Your task to perform on an android device: Open battery settings Image 0: 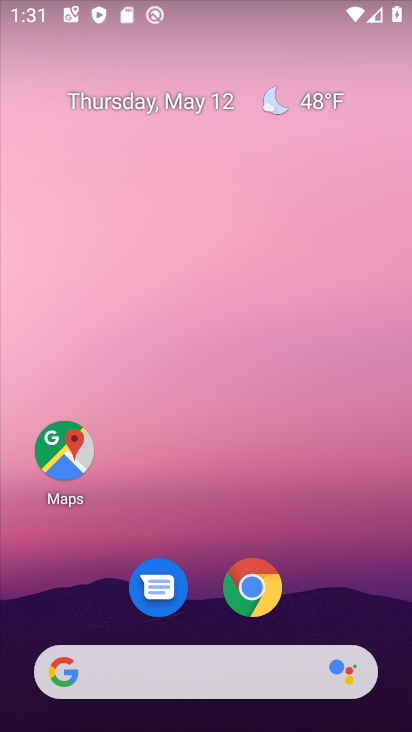
Step 0: drag from (251, 583) to (276, 113)
Your task to perform on an android device: Open battery settings Image 1: 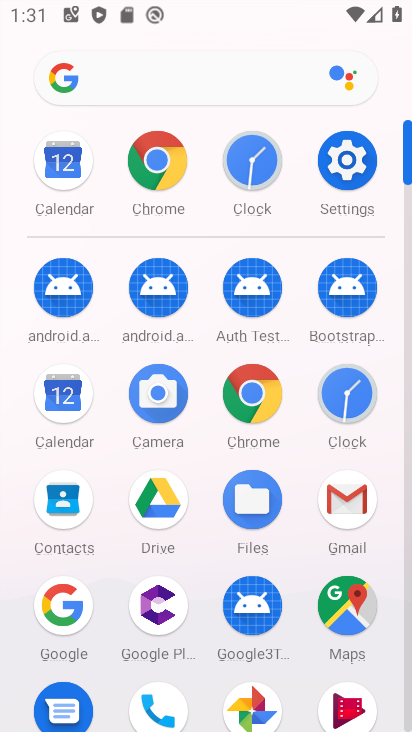
Step 1: click (383, 190)
Your task to perform on an android device: Open battery settings Image 2: 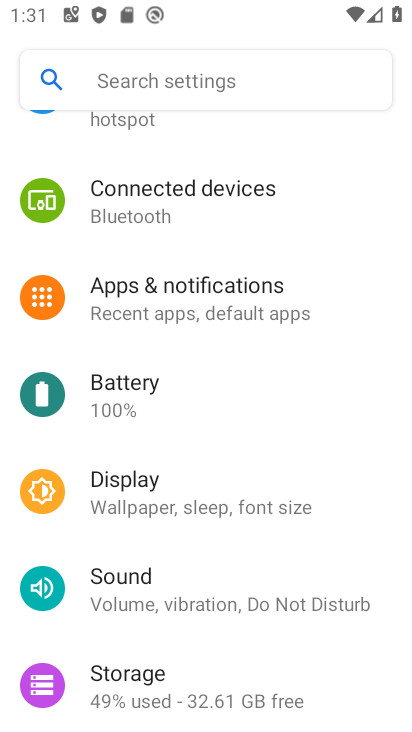
Step 2: click (178, 411)
Your task to perform on an android device: Open battery settings Image 3: 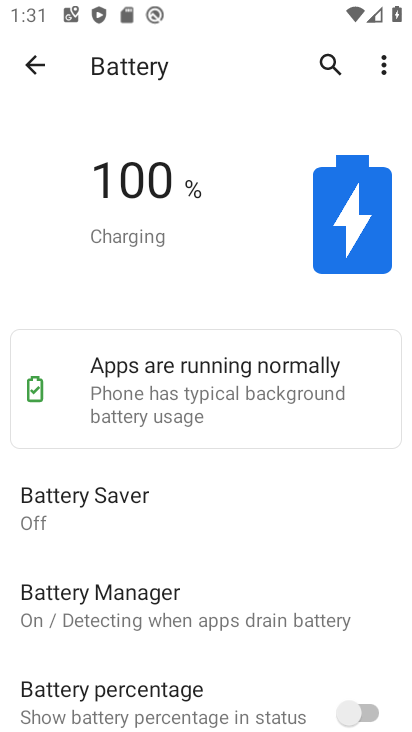
Step 3: task complete